Your task to perform on an android device: Search for vegetarian restaurants on Maps Image 0: 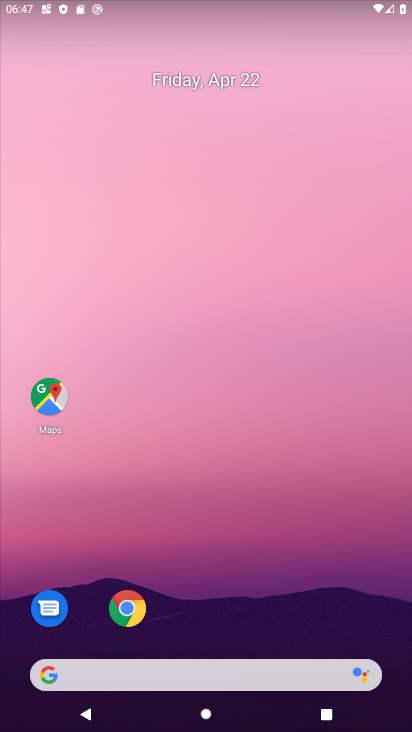
Step 0: drag from (284, 592) to (218, 138)
Your task to perform on an android device: Search for vegetarian restaurants on Maps Image 1: 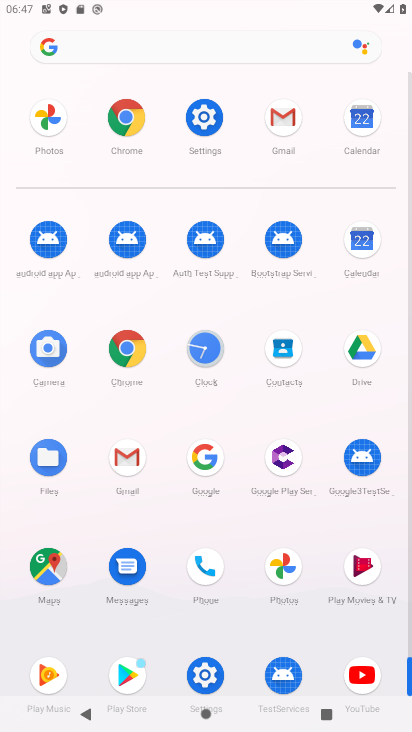
Step 1: click (55, 579)
Your task to perform on an android device: Search for vegetarian restaurants on Maps Image 2: 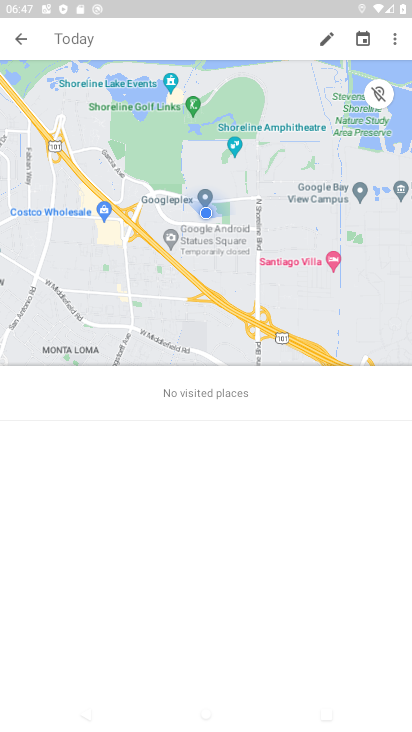
Step 2: press back button
Your task to perform on an android device: Search for vegetarian restaurants on Maps Image 3: 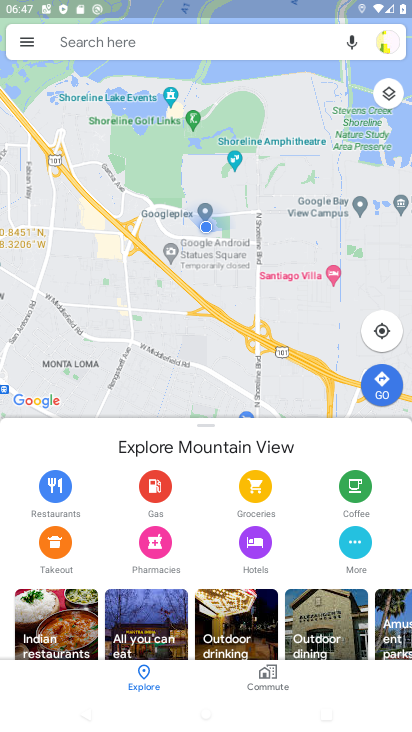
Step 3: click (147, 34)
Your task to perform on an android device: Search for vegetarian restaurants on Maps Image 4: 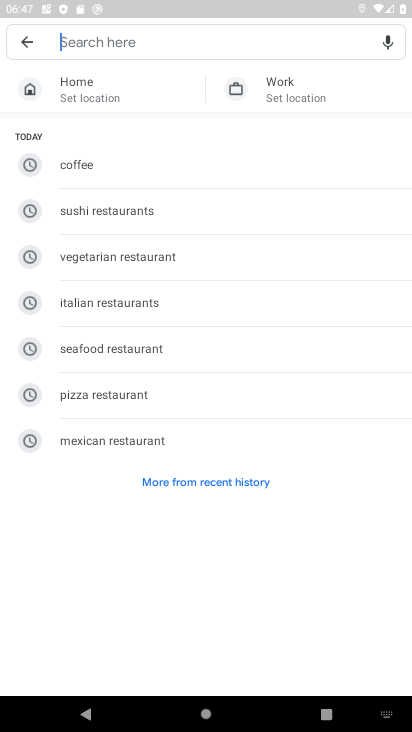
Step 4: click (125, 257)
Your task to perform on an android device: Search for vegetarian restaurants on Maps Image 5: 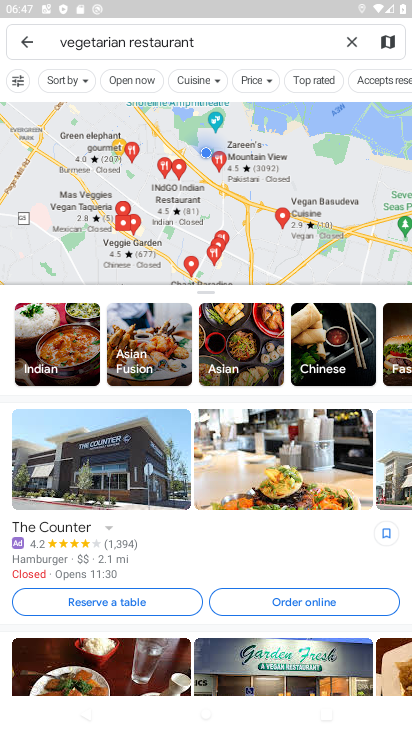
Step 5: task complete